Your task to perform on an android device: Play the last video I watched on Youtube Image 0: 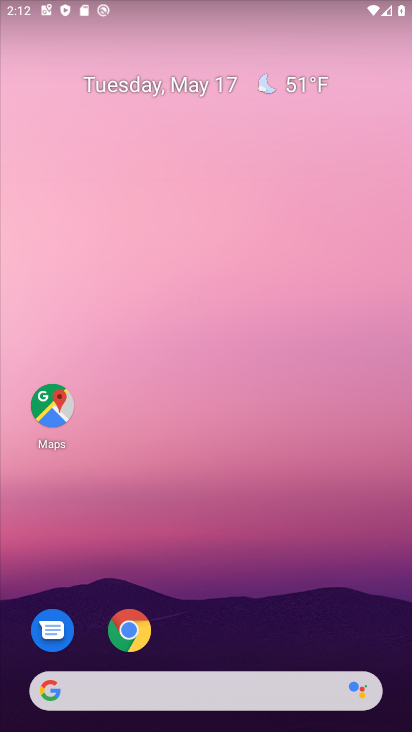
Step 0: drag from (201, 603) to (271, 136)
Your task to perform on an android device: Play the last video I watched on Youtube Image 1: 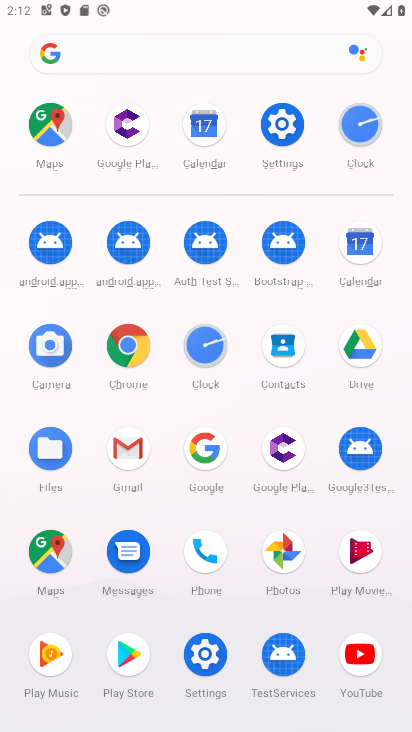
Step 1: click (353, 658)
Your task to perform on an android device: Play the last video I watched on Youtube Image 2: 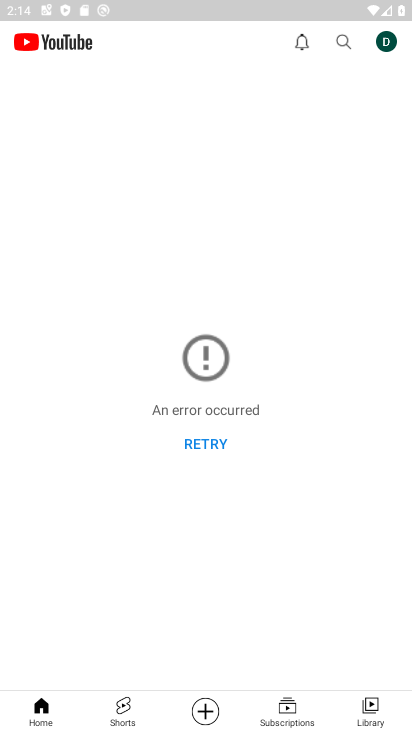
Step 2: task complete